Your task to perform on an android device: Go to eBay Image 0: 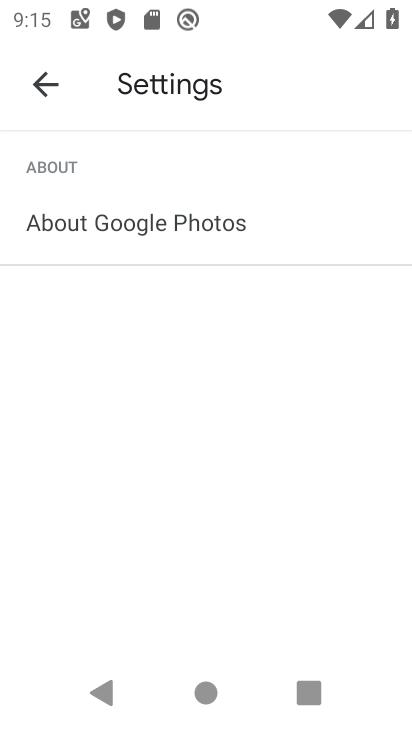
Step 0: press home button
Your task to perform on an android device: Go to eBay Image 1: 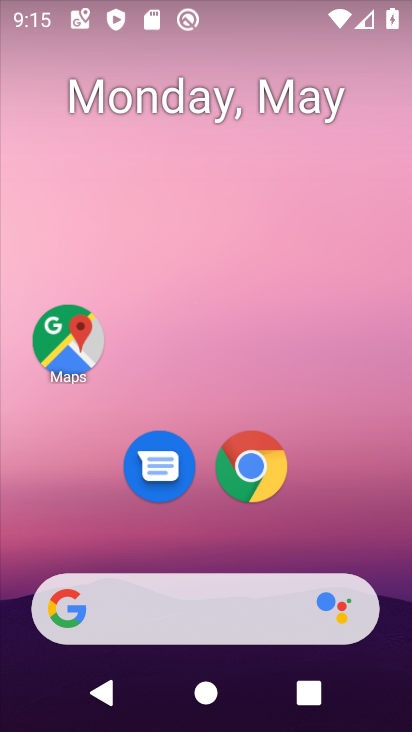
Step 1: click (269, 470)
Your task to perform on an android device: Go to eBay Image 2: 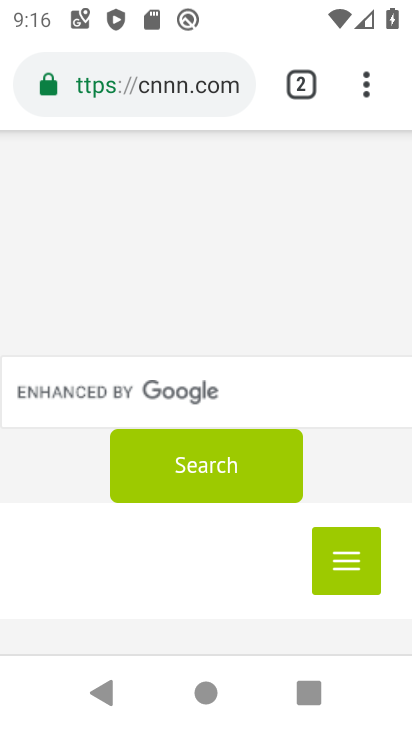
Step 2: click (143, 63)
Your task to perform on an android device: Go to eBay Image 3: 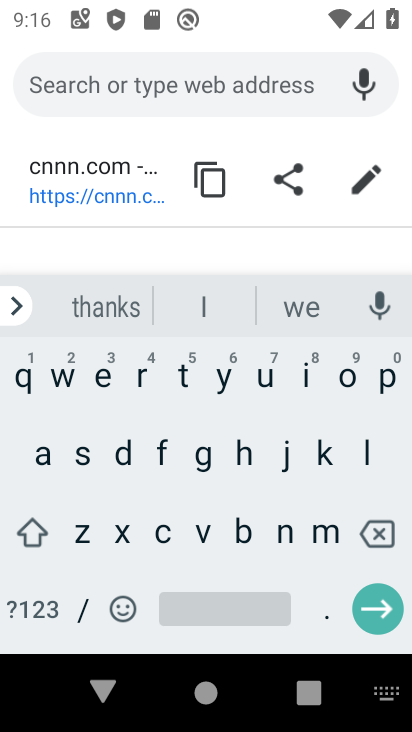
Step 3: click (108, 373)
Your task to perform on an android device: Go to eBay Image 4: 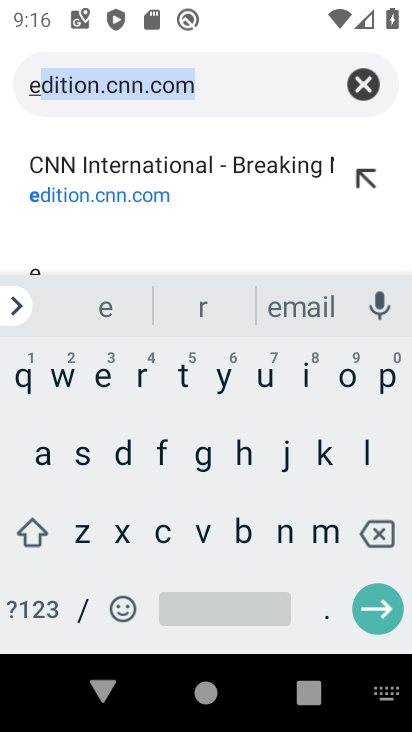
Step 4: click (237, 516)
Your task to perform on an android device: Go to eBay Image 5: 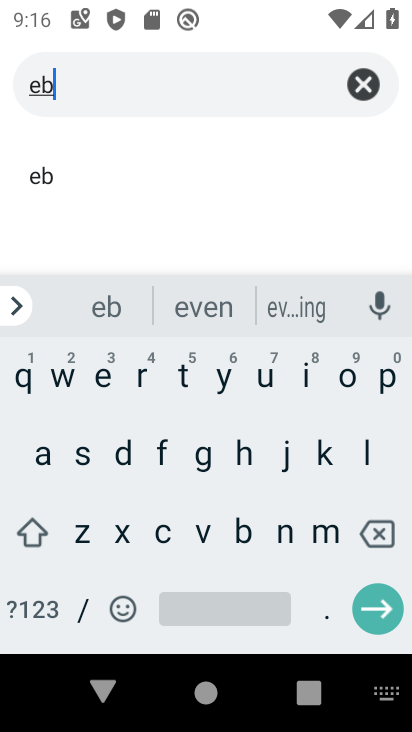
Step 5: click (47, 461)
Your task to perform on an android device: Go to eBay Image 6: 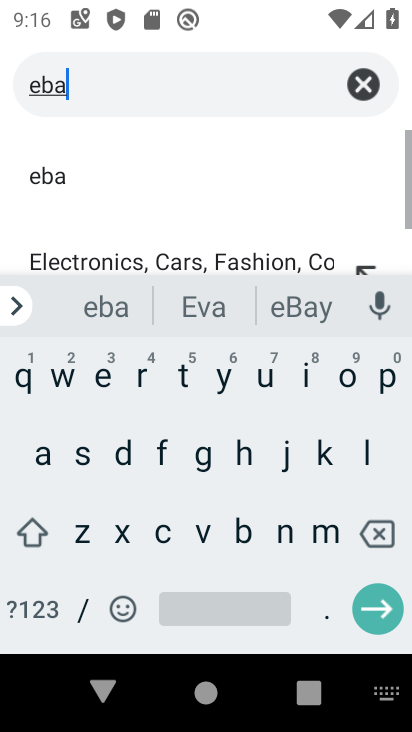
Step 6: click (222, 376)
Your task to perform on an android device: Go to eBay Image 7: 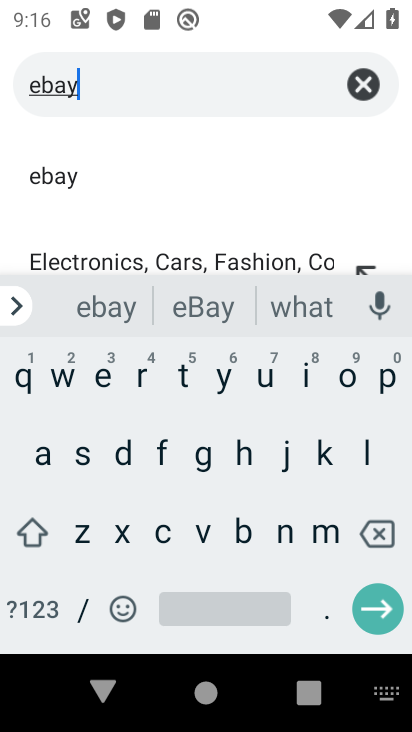
Step 7: click (73, 172)
Your task to perform on an android device: Go to eBay Image 8: 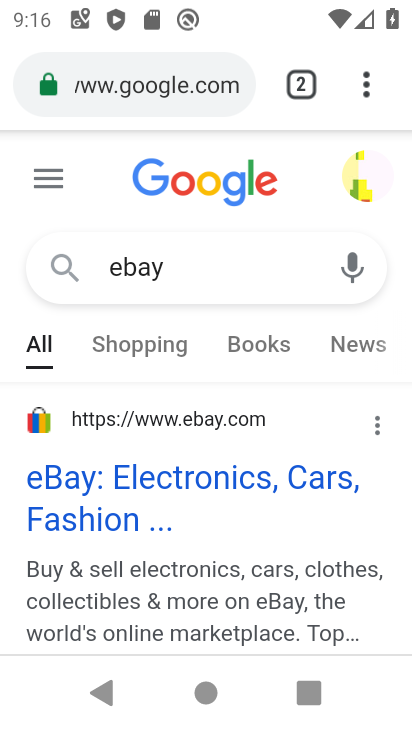
Step 8: click (108, 490)
Your task to perform on an android device: Go to eBay Image 9: 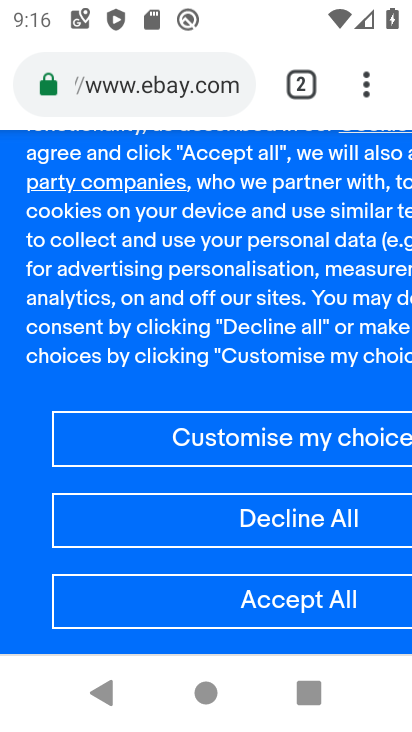
Step 9: click (202, 527)
Your task to perform on an android device: Go to eBay Image 10: 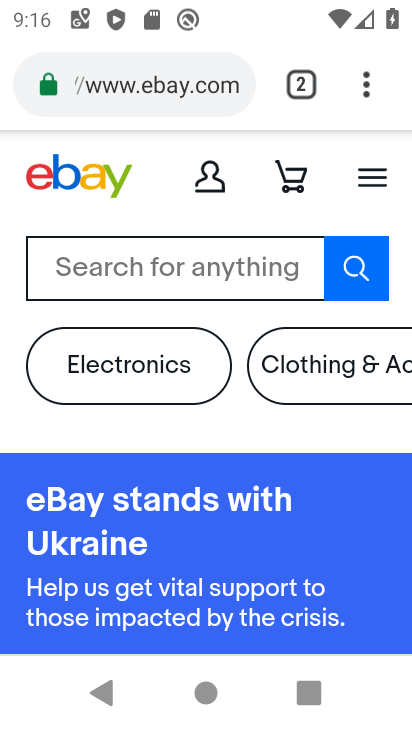
Step 10: task complete